Your task to perform on an android device: Clear the cart on ebay. Search for apple airpods pro on ebay, select the first entry, add it to the cart, then select checkout. Image 0: 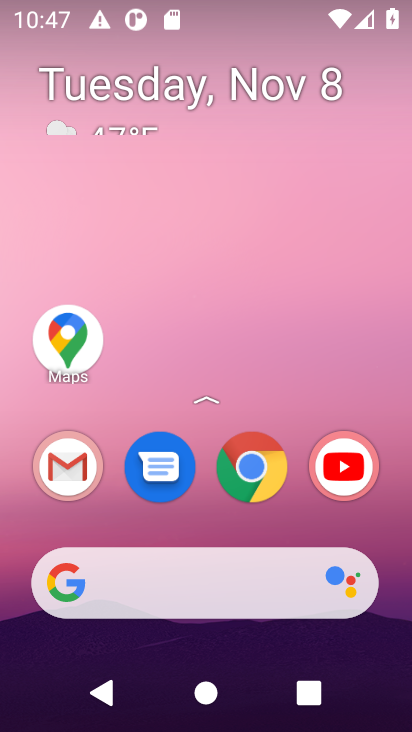
Step 0: click (277, 585)
Your task to perform on an android device: Clear the cart on ebay. Search for apple airpods pro on ebay, select the first entry, add it to the cart, then select checkout. Image 1: 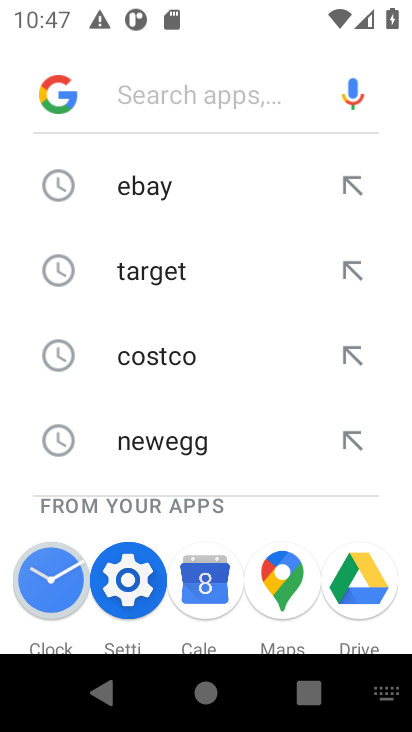
Step 1: click (221, 182)
Your task to perform on an android device: Clear the cart on ebay. Search for apple airpods pro on ebay, select the first entry, add it to the cart, then select checkout. Image 2: 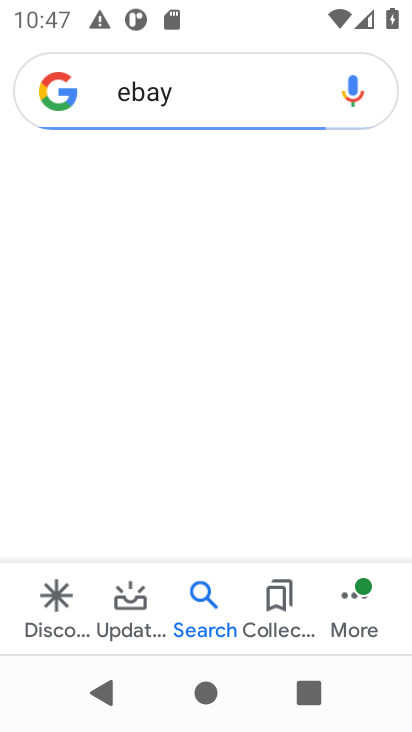
Step 2: task complete